Your task to perform on an android device: Open calendar and show me the third week of next month Image 0: 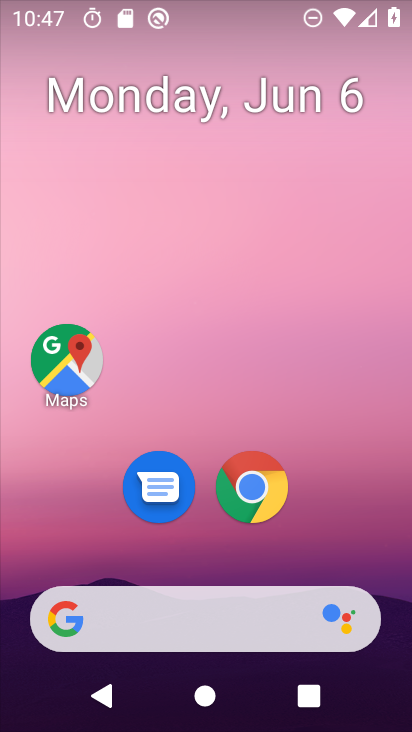
Step 0: drag from (394, 609) to (291, 90)
Your task to perform on an android device: Open calendar and show me the third week of next month Image 1: 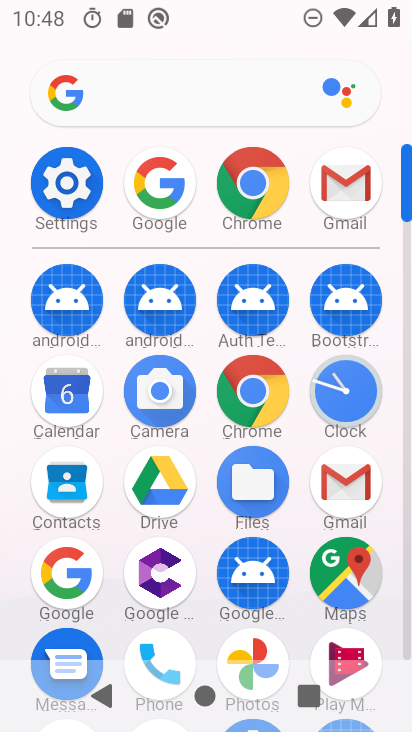
Step 1: click (78, 412)
Your task to perform on an android device: Open calendar and show me the third week of next month Image 2: 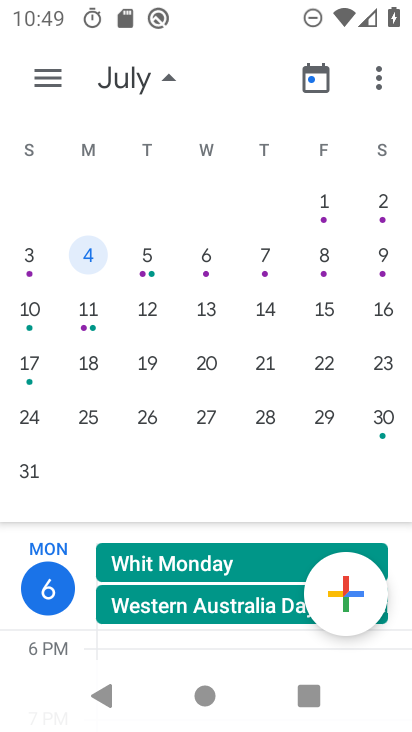
Step 2: drag from (364, 266) to (63, 332)
Your task to perform on an android device: Open calendar and show me the third week of next month Image 3: 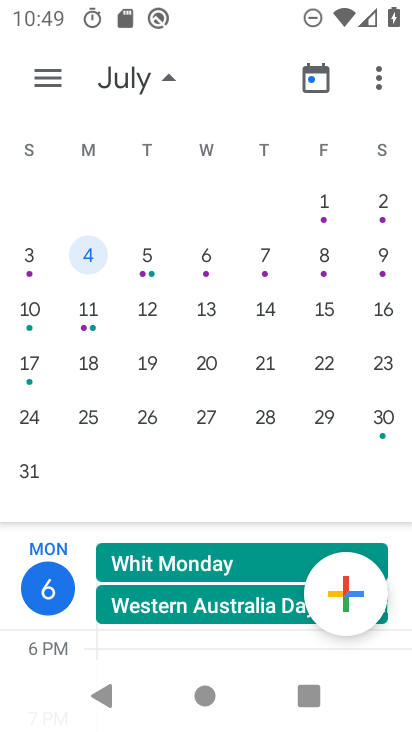
Step 3: drag from (357, 297) to (42, 314)
Your task to perform on an android device: Open calendar and show me the third week of next month Image 4: 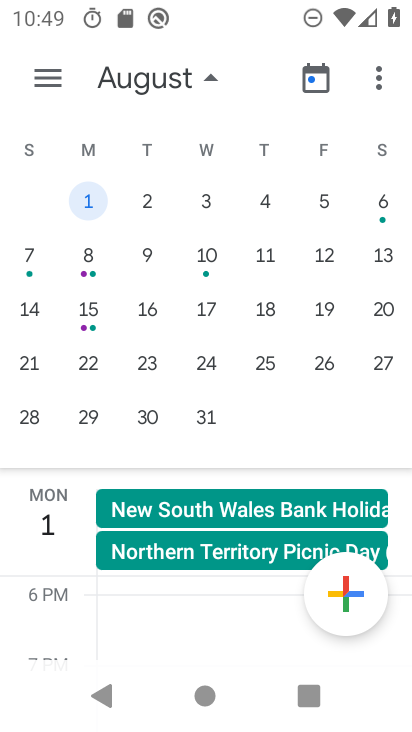
Step 4: click (257, 365)
Your task to perform on an android device: Open calendar and show me the third week of next month Image 5: 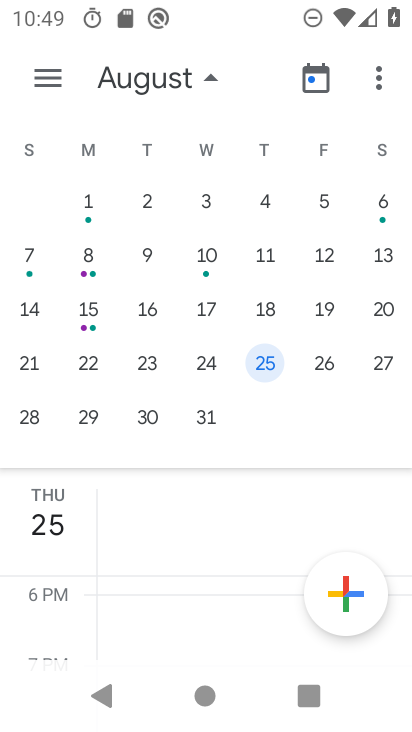
Step 5: task complete